Your task to perform on an android device: Open notification settings Image 0: 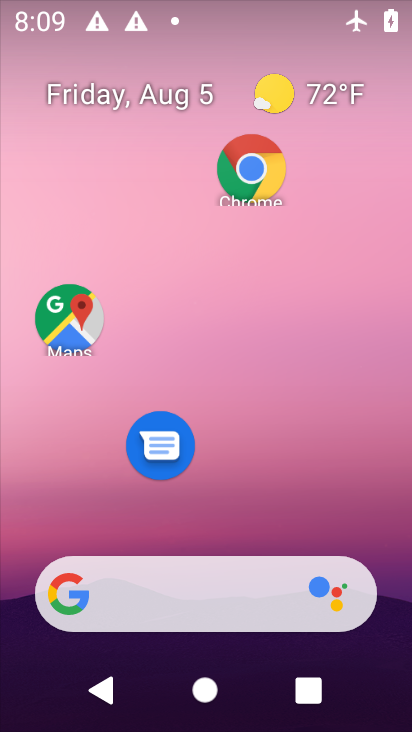
Step 0: drag from (217, 502) to (209, 141)
Your task to perform on an android device: Open notification settings Image 1: 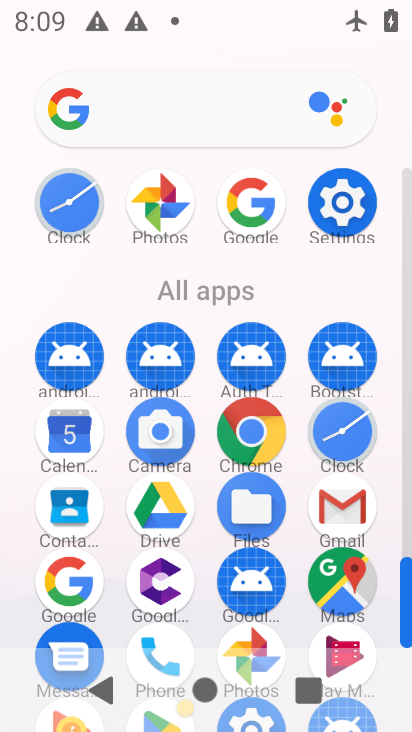
Step 1: click (341, 189)
Your task to perform on an android device: Open notification settings Image 2: 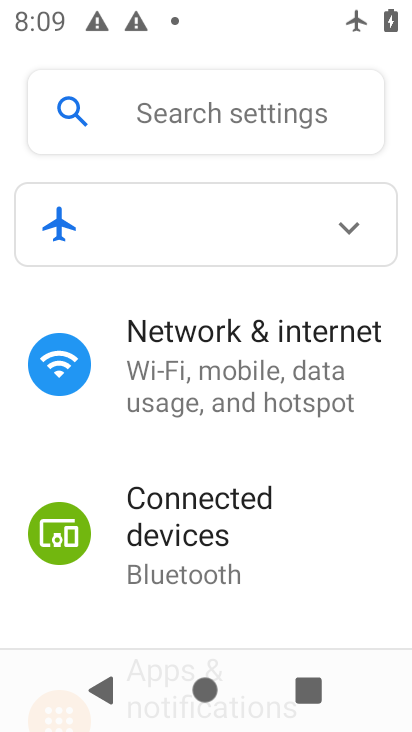
Step 2: drag from (252, 532) to (243, 191)
Your task to perform on an android device: Open notification settings Image 3: 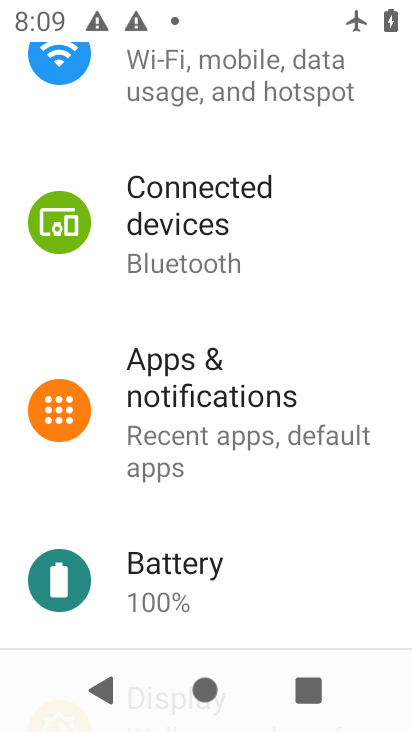
Step 3: drag from (245, 550) to (242, 196)
Your task to perform on an android device: Open notification settings Image 4: 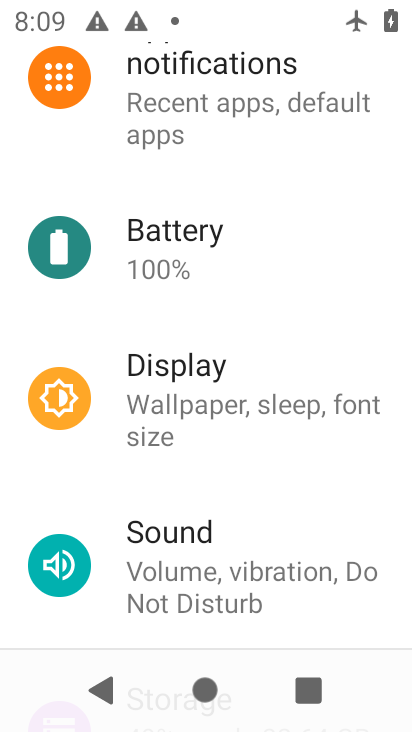
Step 4: click (207, 93)
Your task to perform on an android device: Open notification settings Image 5: 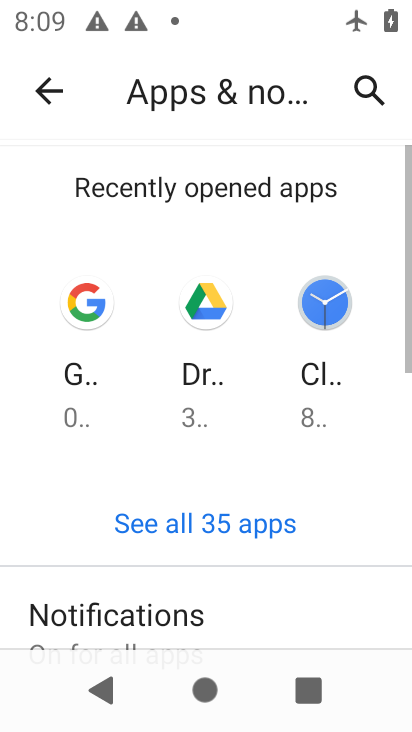
Step 5: drag from (175, 619) to (189, 238)
Your task to perform on an android device: Open notification settings Image 6: 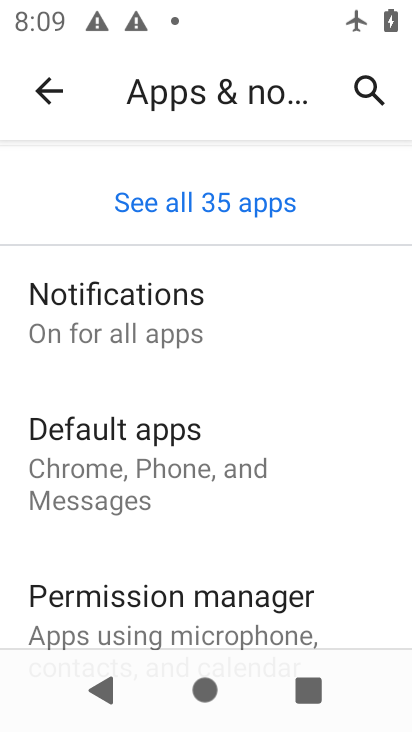
Step 6: click (201, 298)
Your task to perform on an android device: Open notification settings Image 7: 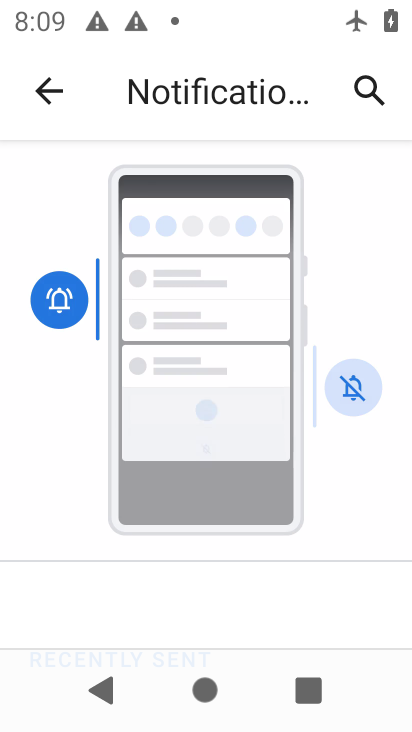
Step 7: task complete